Your task to perform on an android device: open app "AliExpress" (install if not already installed) Image 0: 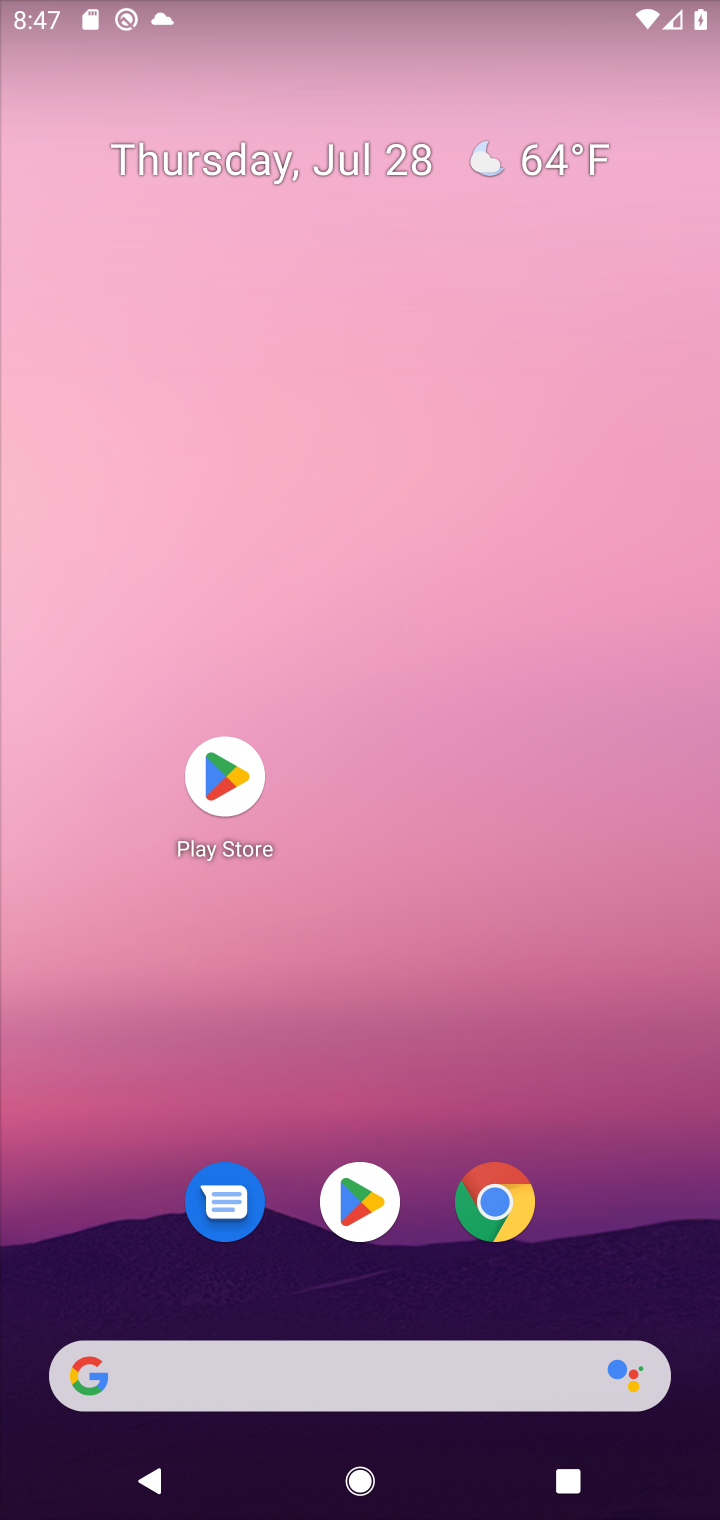
Step 0: click (225, 792)
Your task to perform on an android device: open app "AliExpress" (install if not already installed) Image 1: 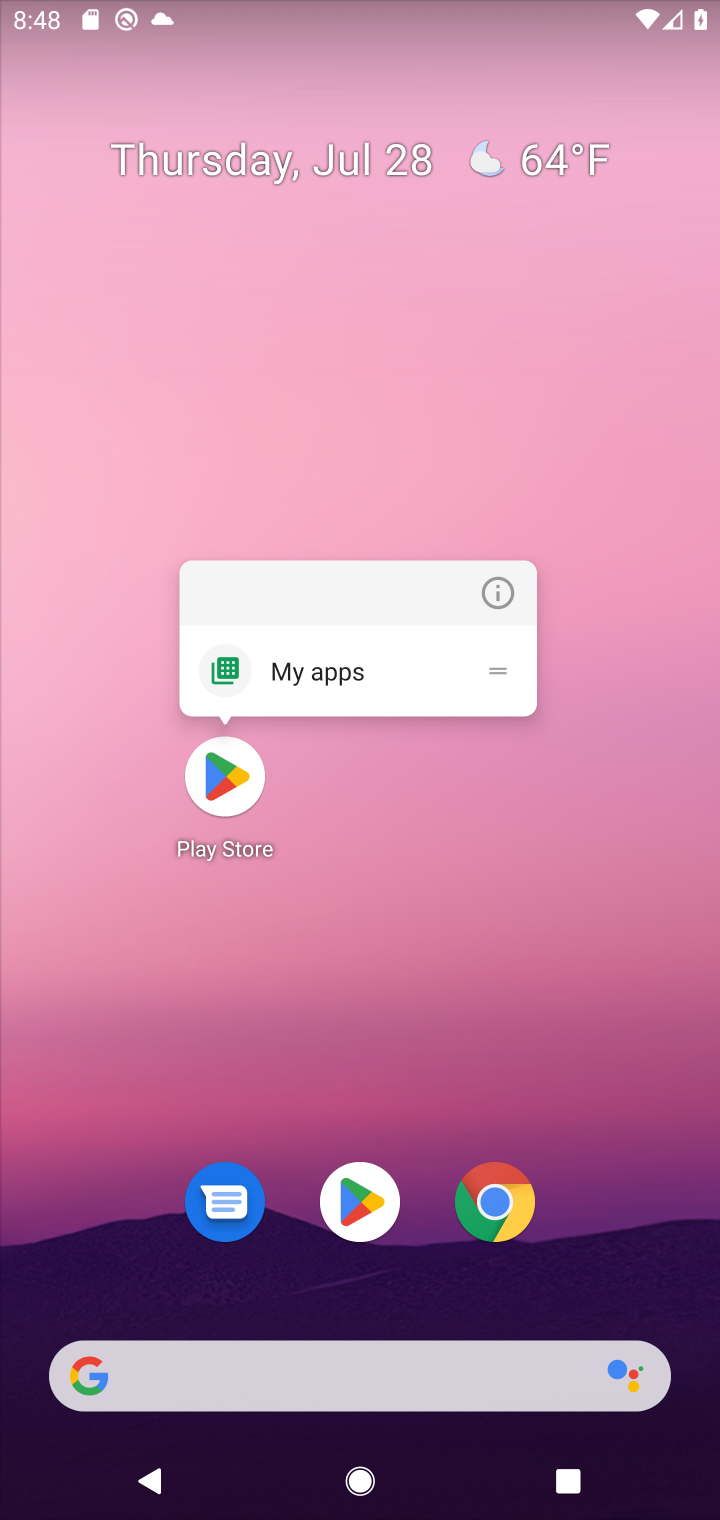
Step 1: click (355, 1214)
Your task to perform on an android device: open app "AliExpress" (install if not already installed) Image 2: 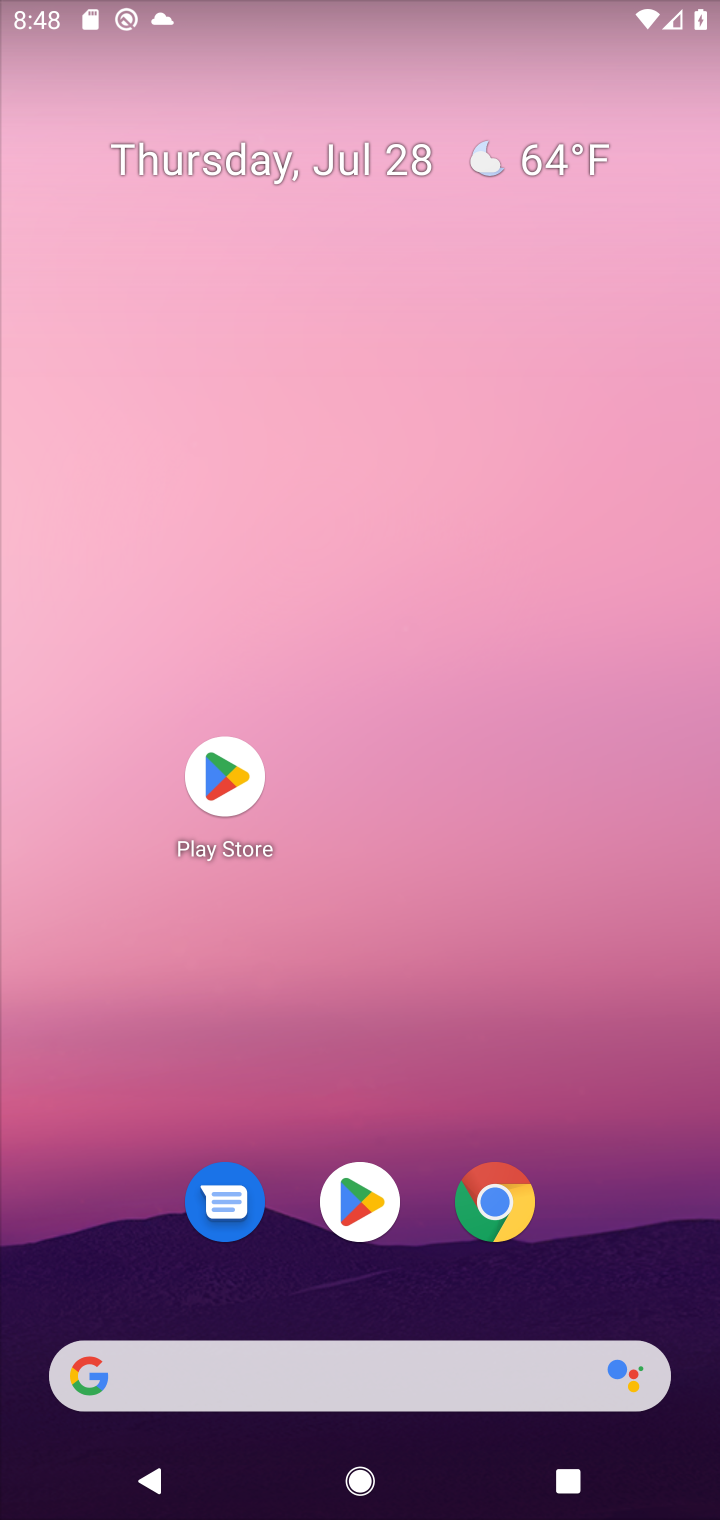
Step 2: click (364, 1198)
Your task to perform on an android device: open app "AliExpress" (install if not already installed) Image 3: 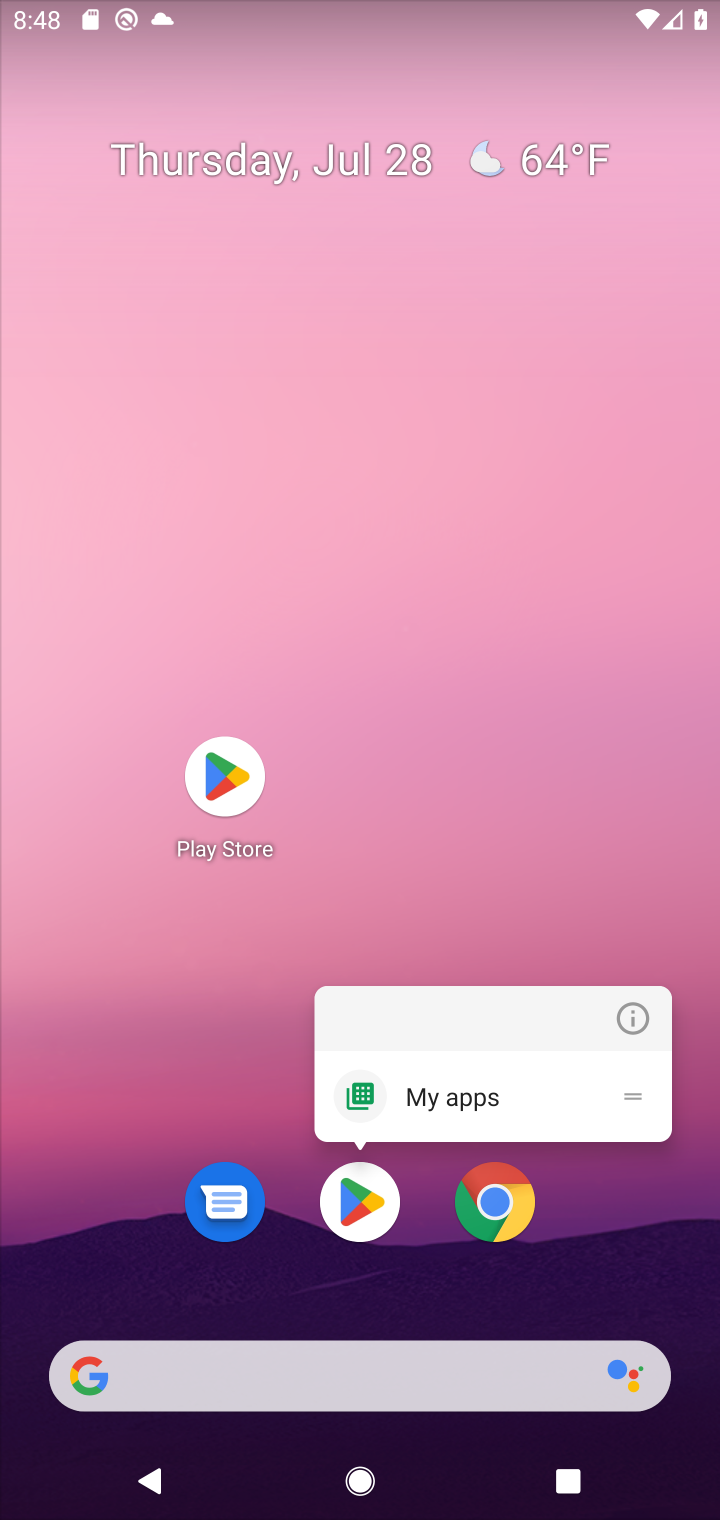
Step 3: click (352, 1169)
Your task to perform on an android device: open app "AliExpress" (install if not already installed) Image 4: 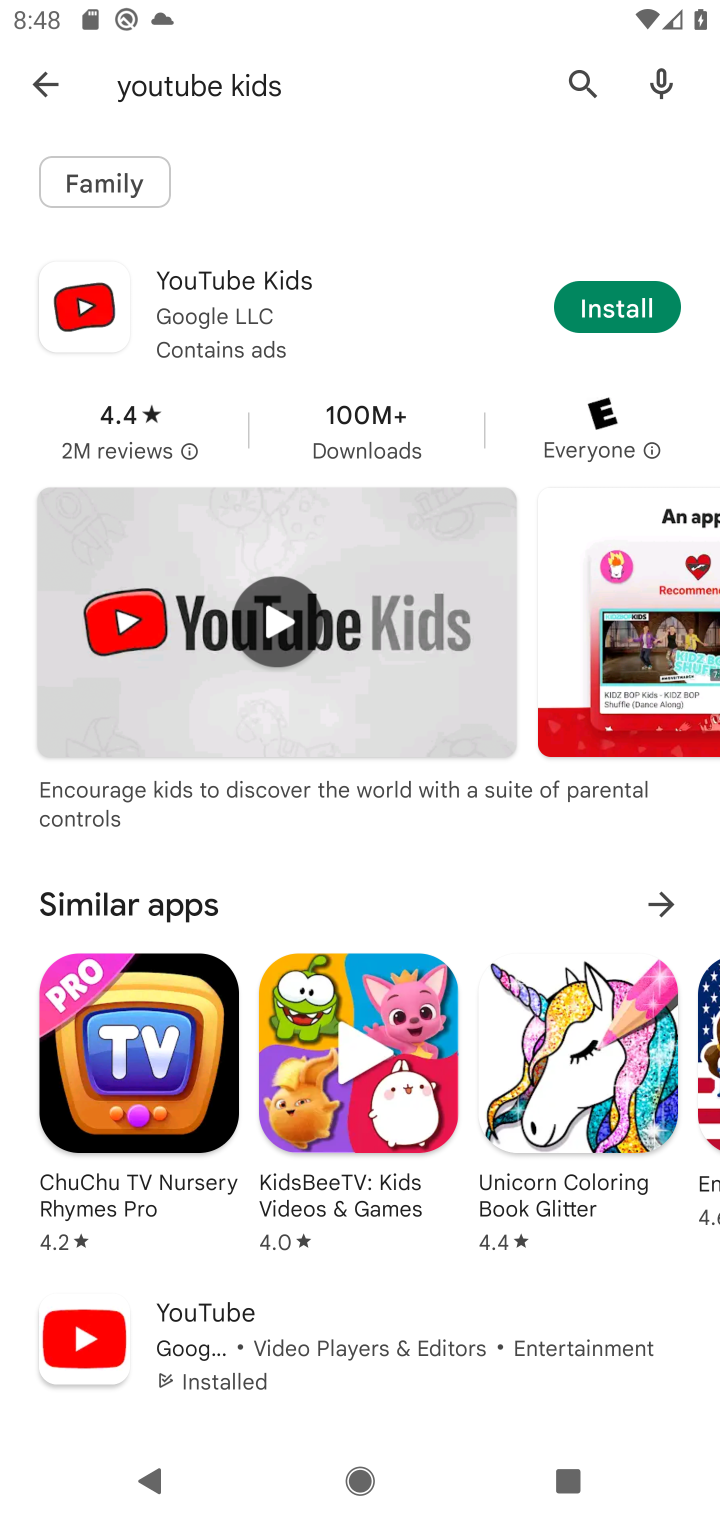
Step 4: click (582, 71)
Your task to perform on an android device: open app "AliExpress" (install if not already installed) Image 5: 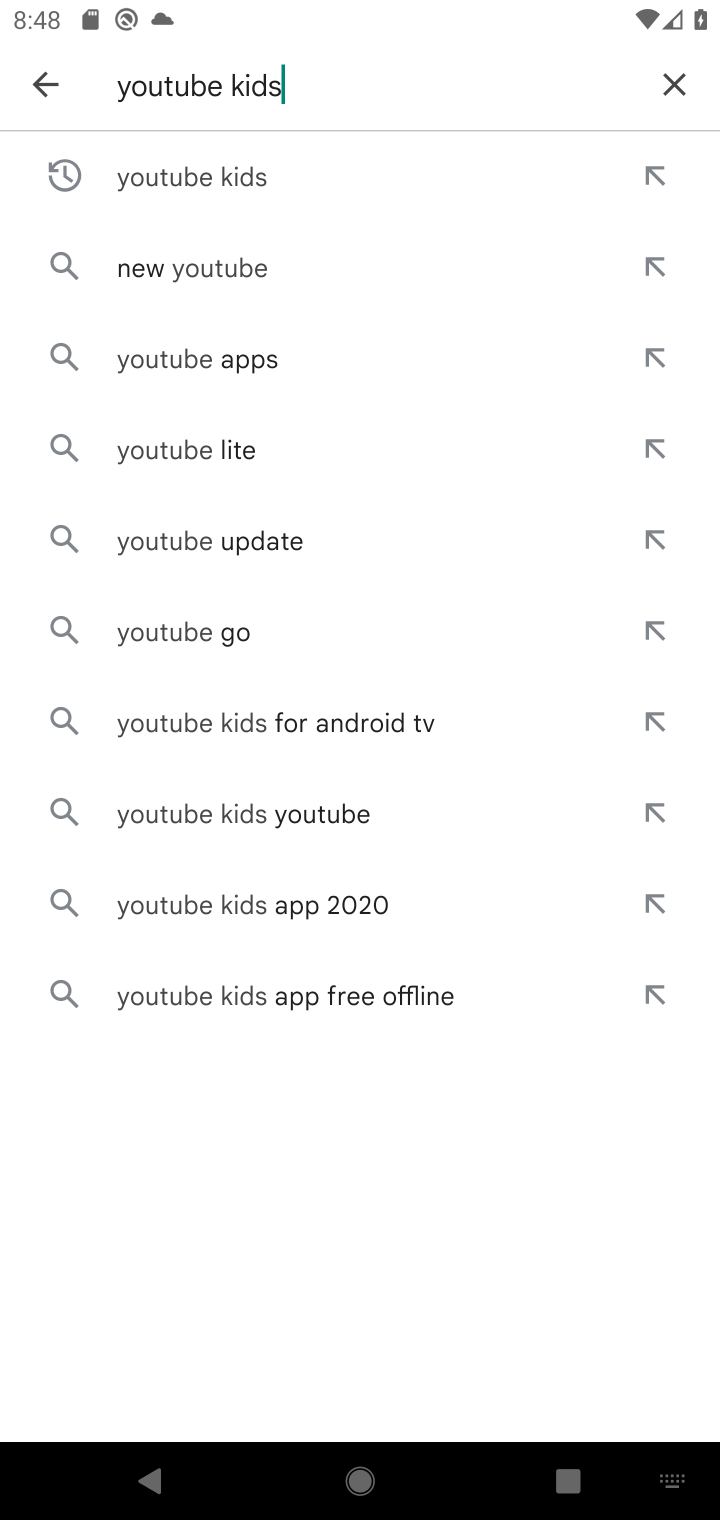
Step 5: click (689, 74)
Your task to perform on an android device: open app "AliExpress" (install if not already installed) Image 6: 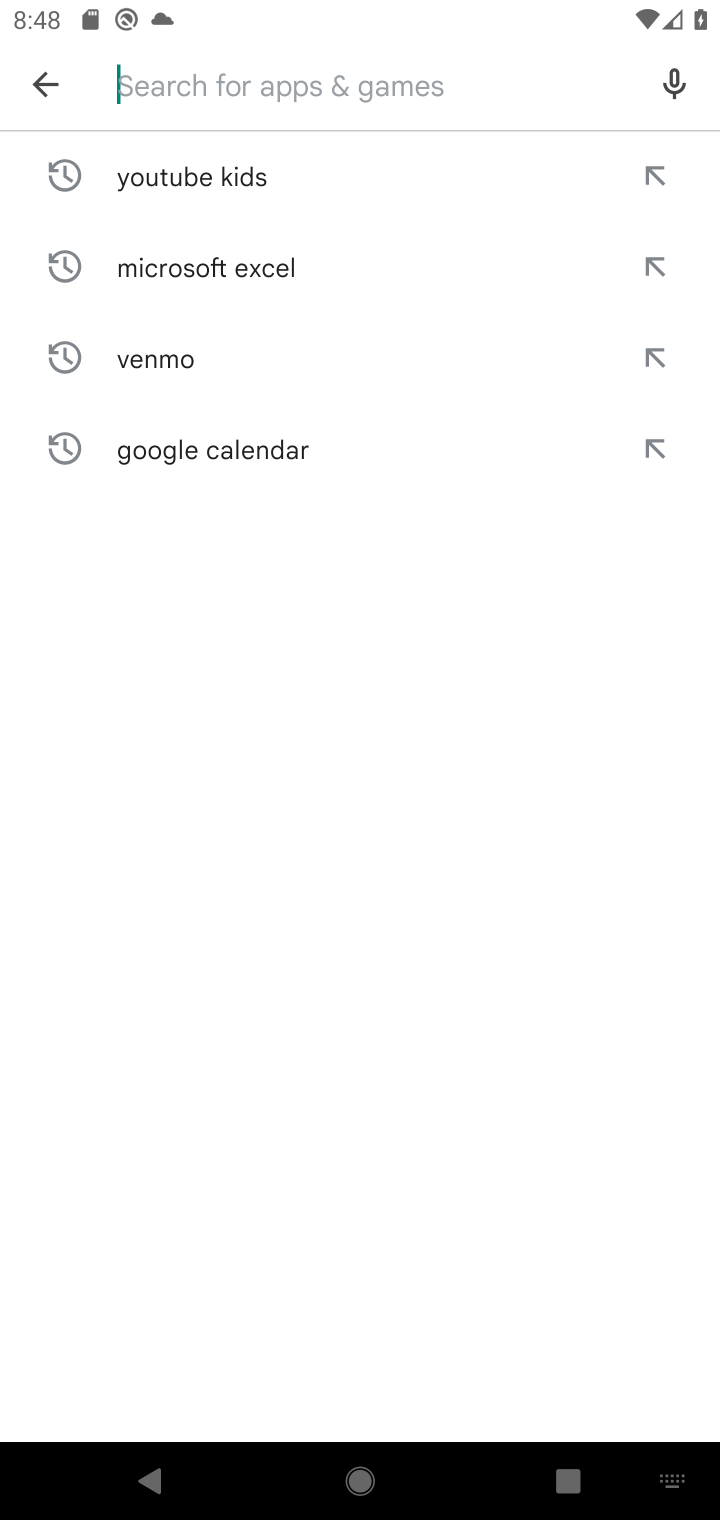
Step 6: type "AliExpress"
Your task to perform on an android device: open app "AliExpress" (install if not already installed) Image 7: 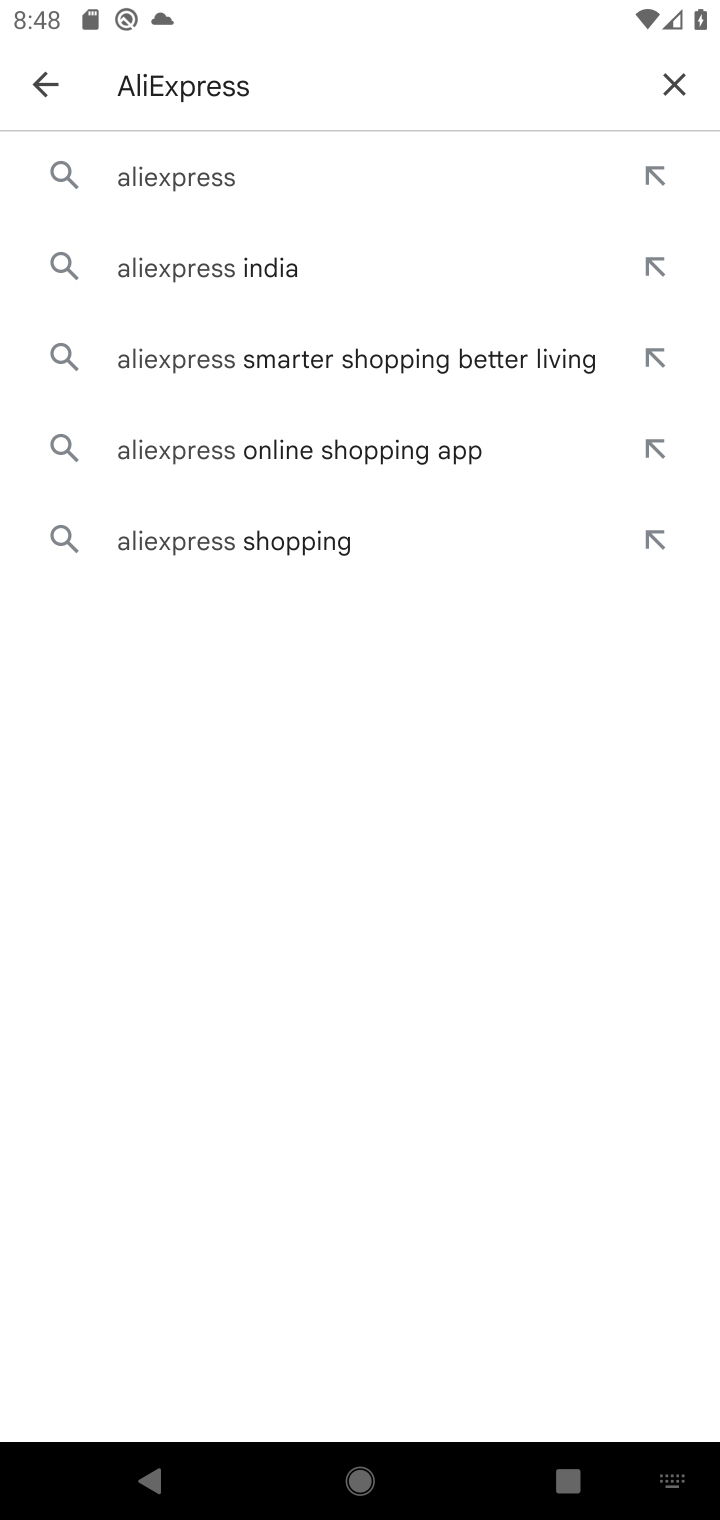
Step 7: click (198, 178)
Your task to perform on an android device: open app "AliExpress" (install if not already installed) Image 8: 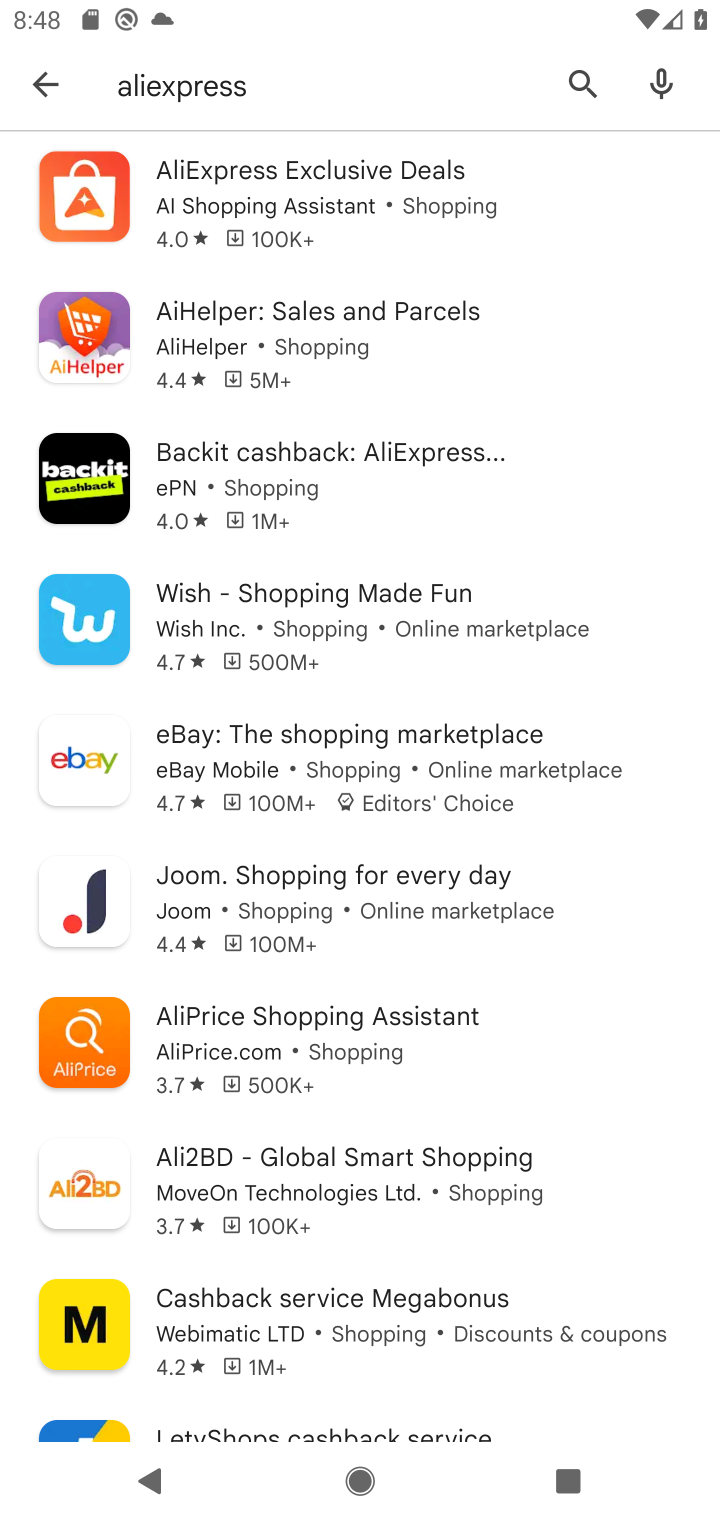
Step 8: click (288, 181)
Your task to perform on an android device: open app "AliExpress" (install if not already installed) Image 9: 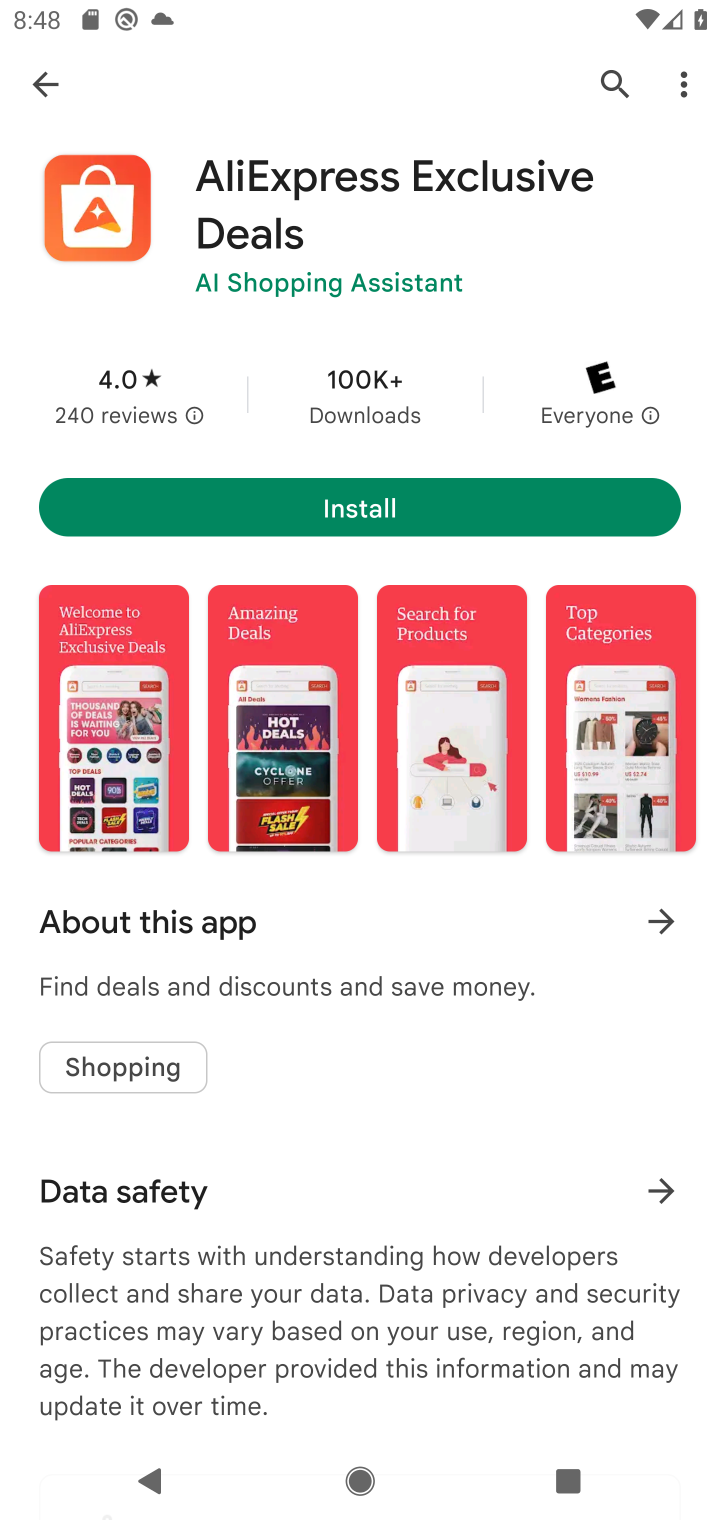
Step 9: click (347, 503)
Your task to perform on an android device: open app "AliExpress" (install if not already installed) Image 10: 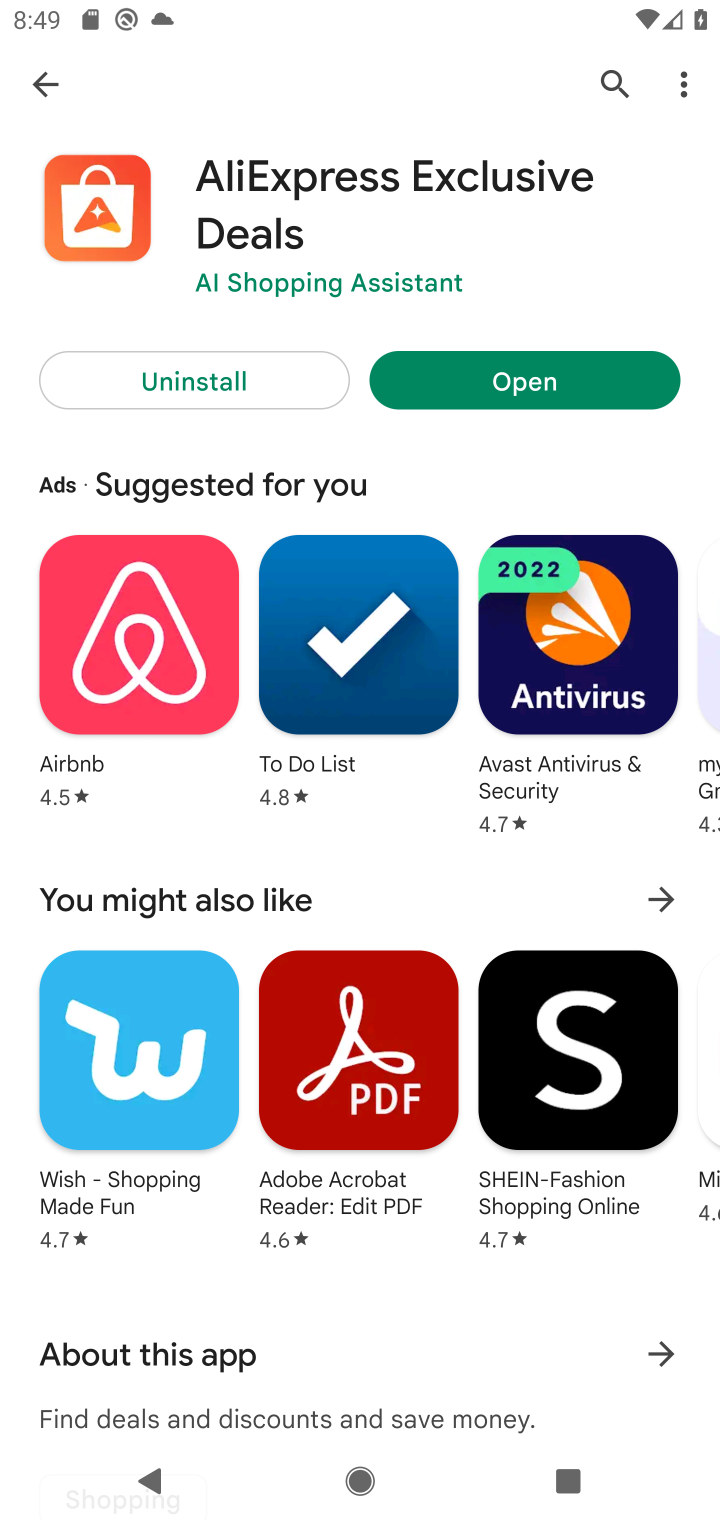
Step 10: click (561, 398)
Your task to perform on an android device: open app "AliExpress" (install if not already installed) Image 11: 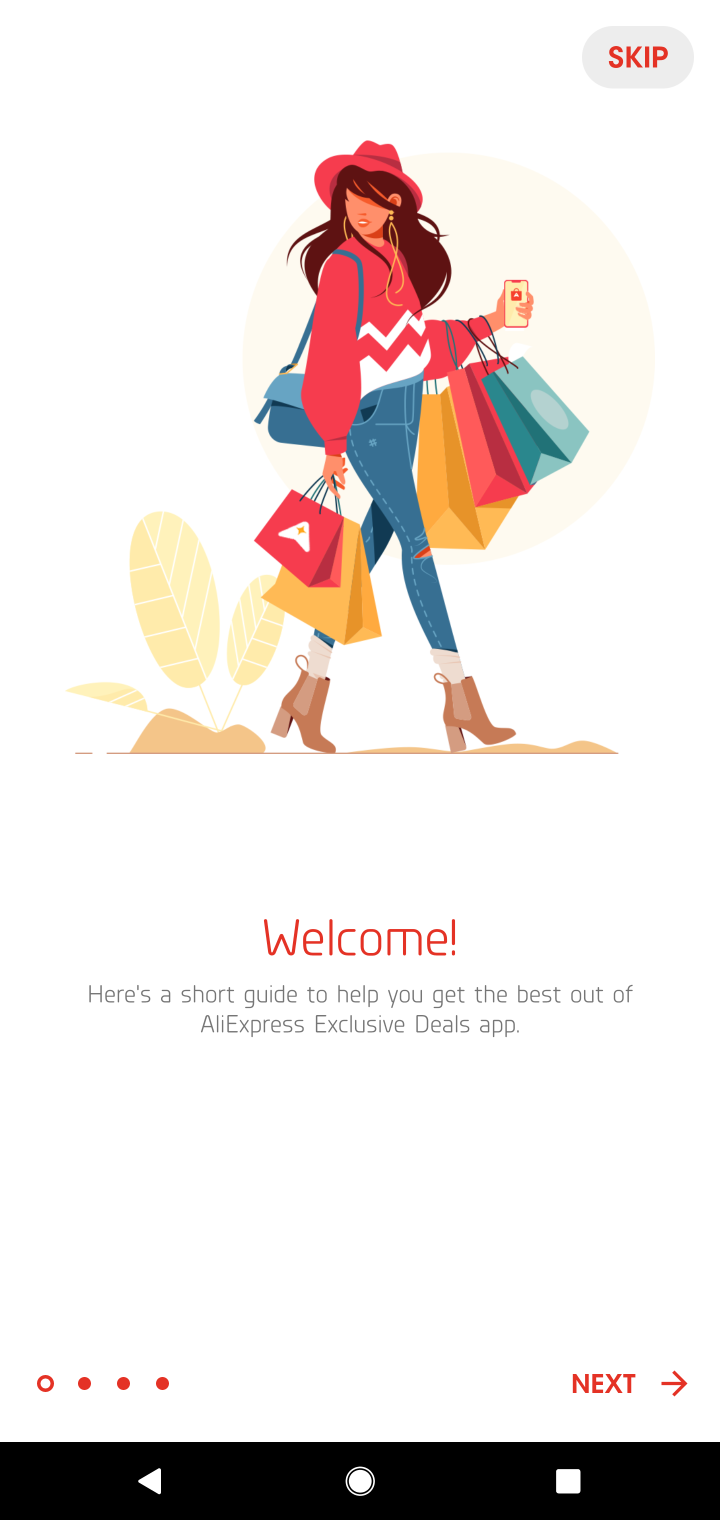
Step 11: click (622, 58)
Your task to perform on an android device: open app "AliExpress" (install if not already installed) Image 12: 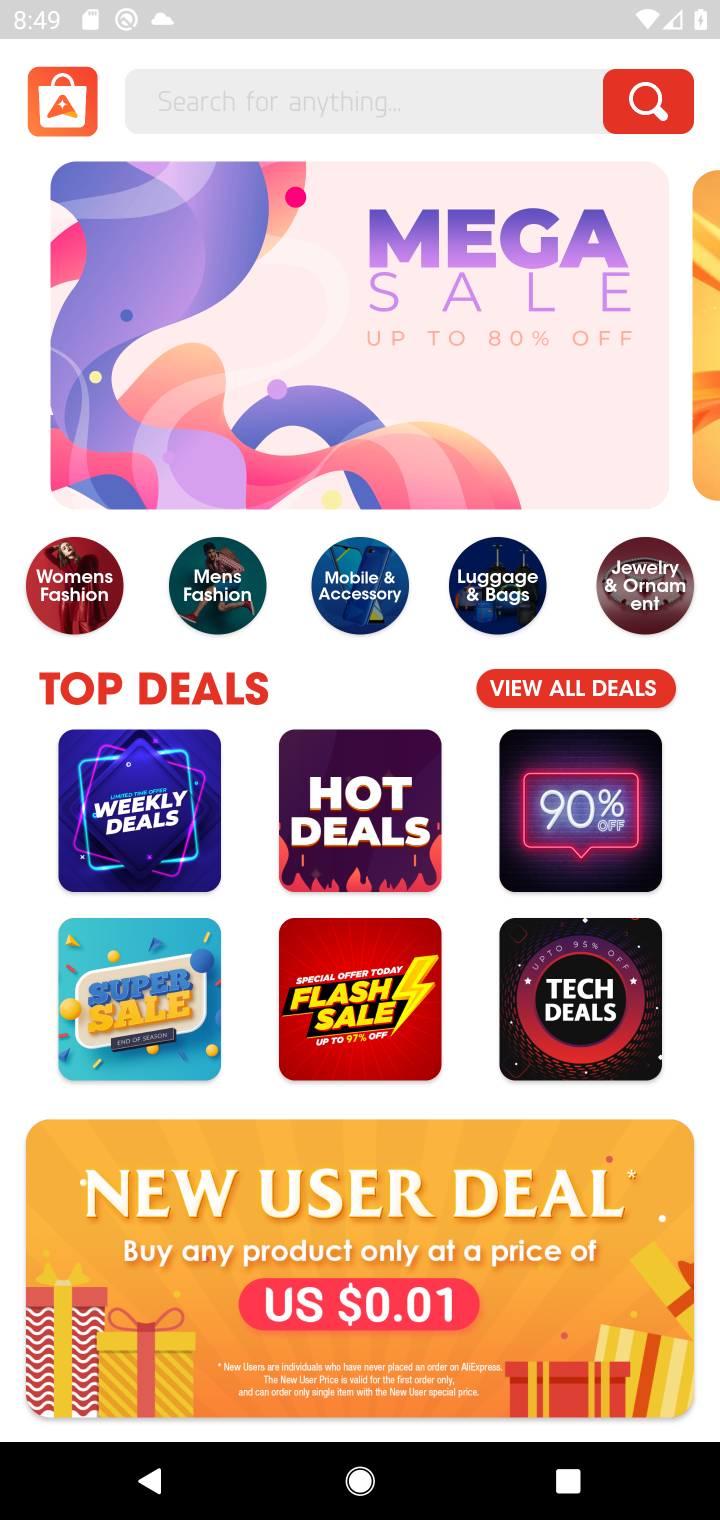
Step 12: task complete